Your task to perform on an android device: What's on my calendar tomorrow? Image 0: 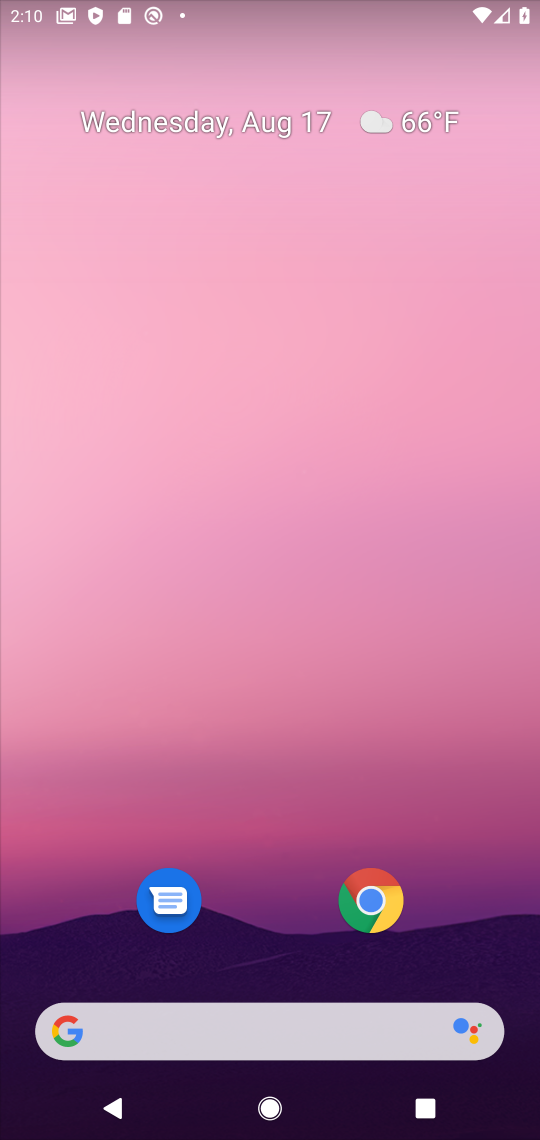
Step 0: press home button
Your task to perform on an android device: What's on my calendar tomorrow? Image 1: 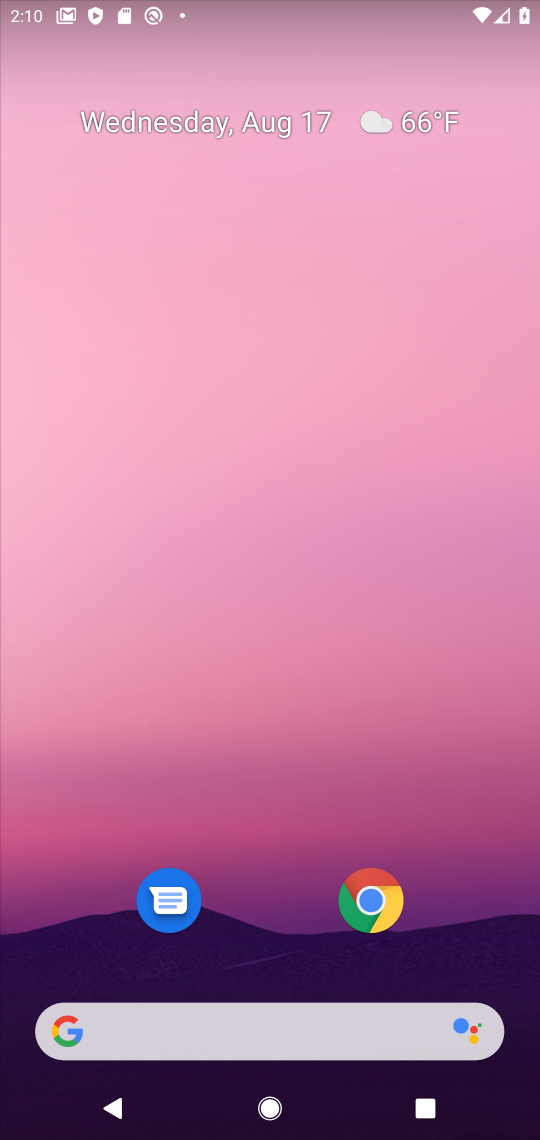
Step 1: drag from (293, 988) to (463, 119)
Your task to perform on an android device: What's on my calendar tomorrow? Image 2: 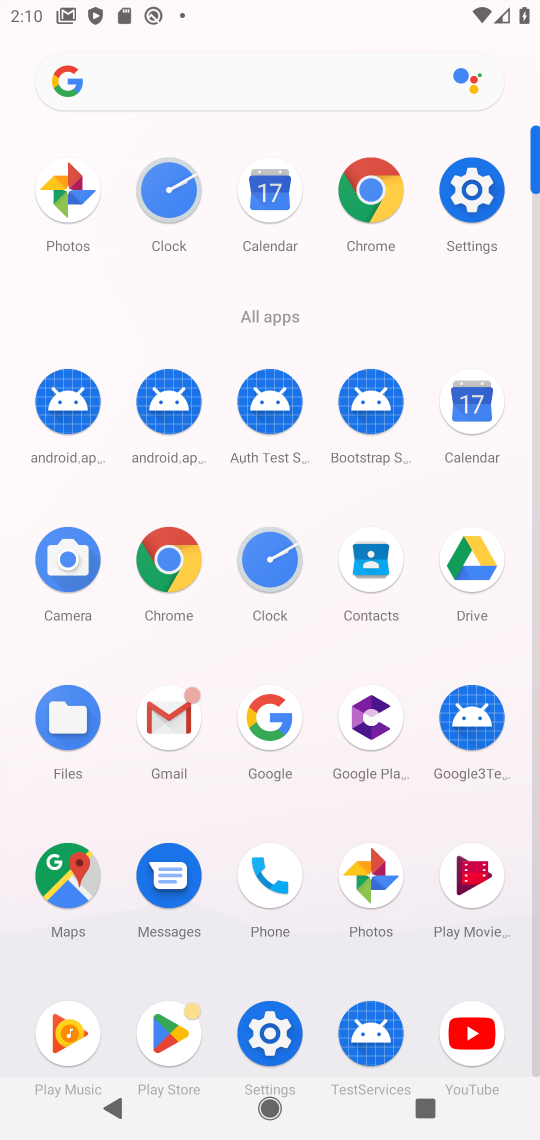
Step 2: click (471, 407)
Your task to perform on an android device: What's on my calendar tomorrow? Image 3: 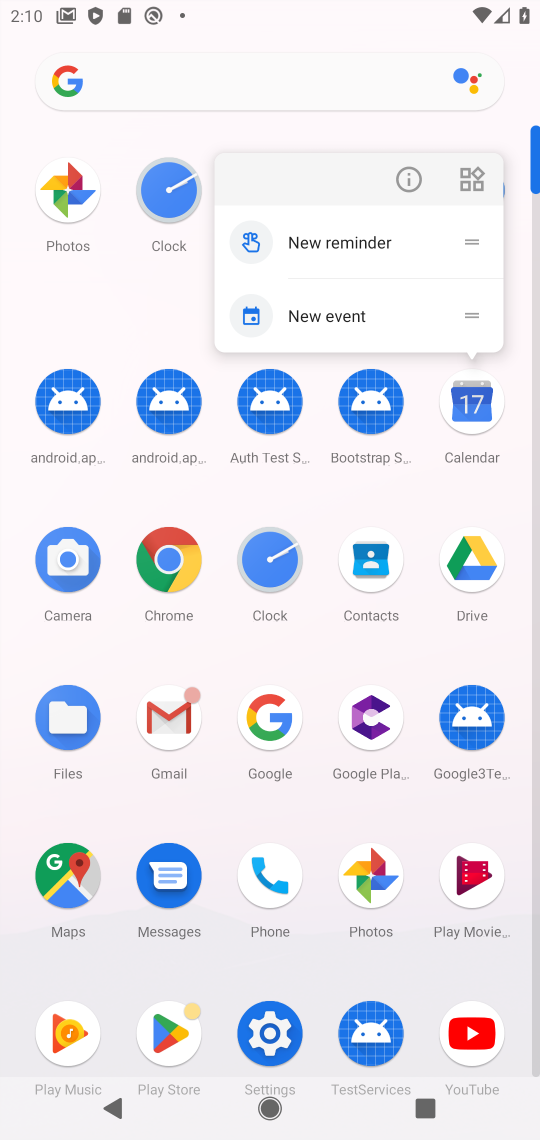
Step 3: click (471, 408)
Your task to perform on an android device: What's on my calendar tomorrow? Image 4: 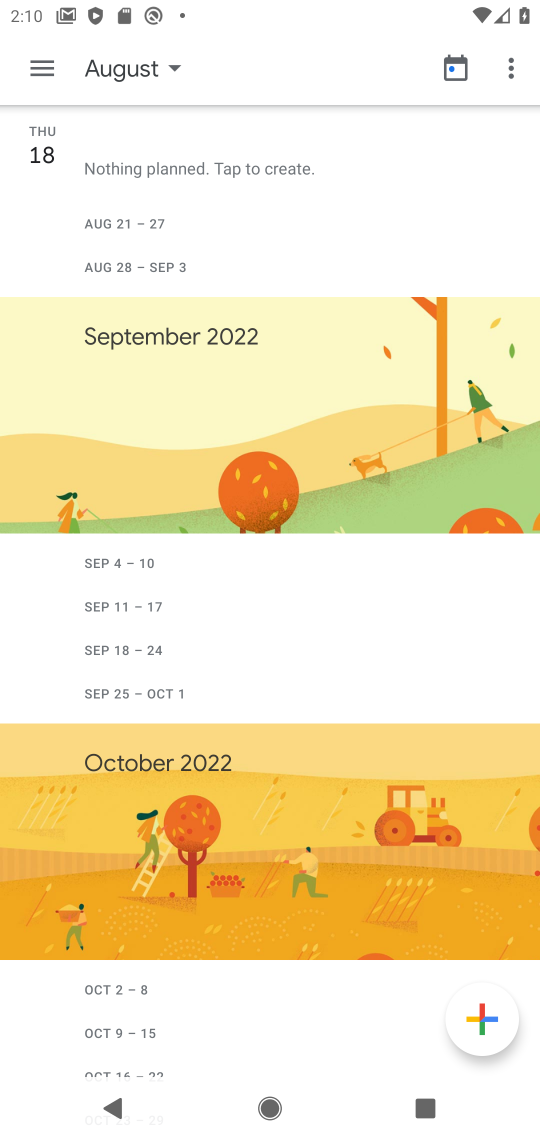
Step 4: task complete